Your task to perform on an android device: View the shopping cart on costco.com. Search for usb-a on costco.com, select the first entry, and add it to the cart. Image 0: 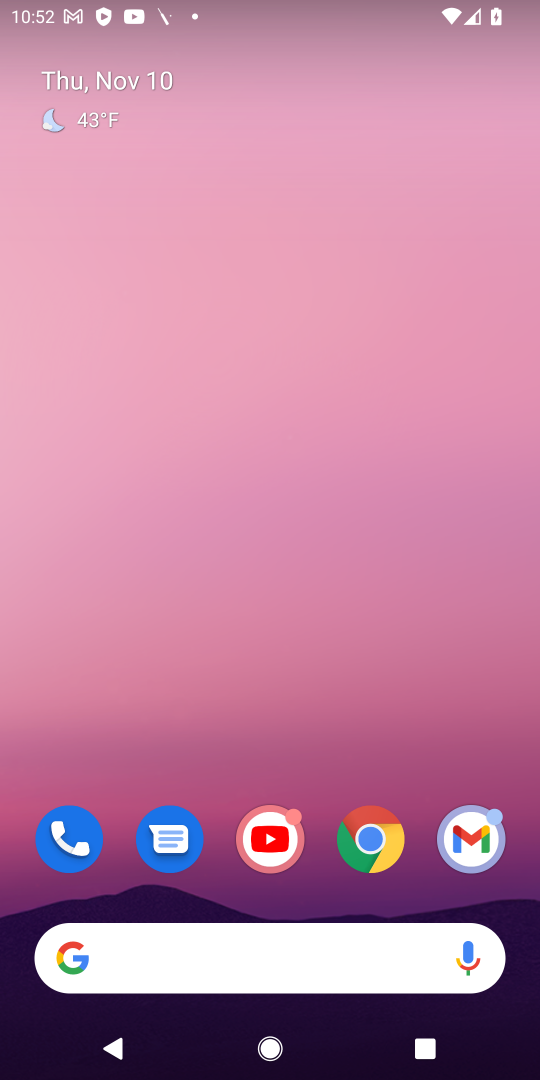
Step 0: click (376, 832)
Your task to perform on an android device: View the shopping cart on costco.com. Search for usb-a on costco.com, select the first entry, and add it to the cart. Image 1: 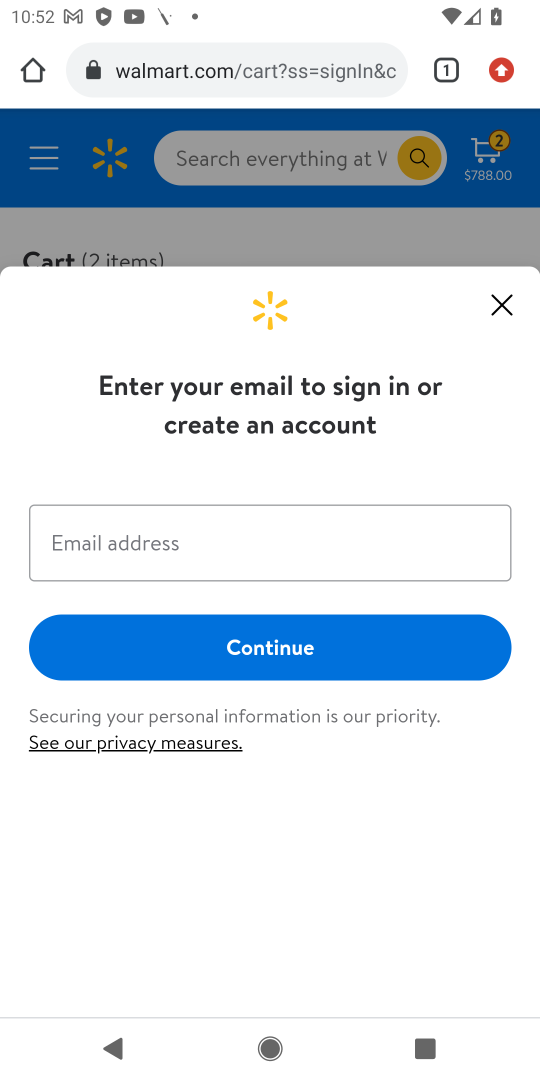
Step 1: click (368, 66)
Your task to perform on an android device: View the shopping cart on costco.com. Search for usb-a on costco.com, select the first entry, and add it to the cart. Image 2: 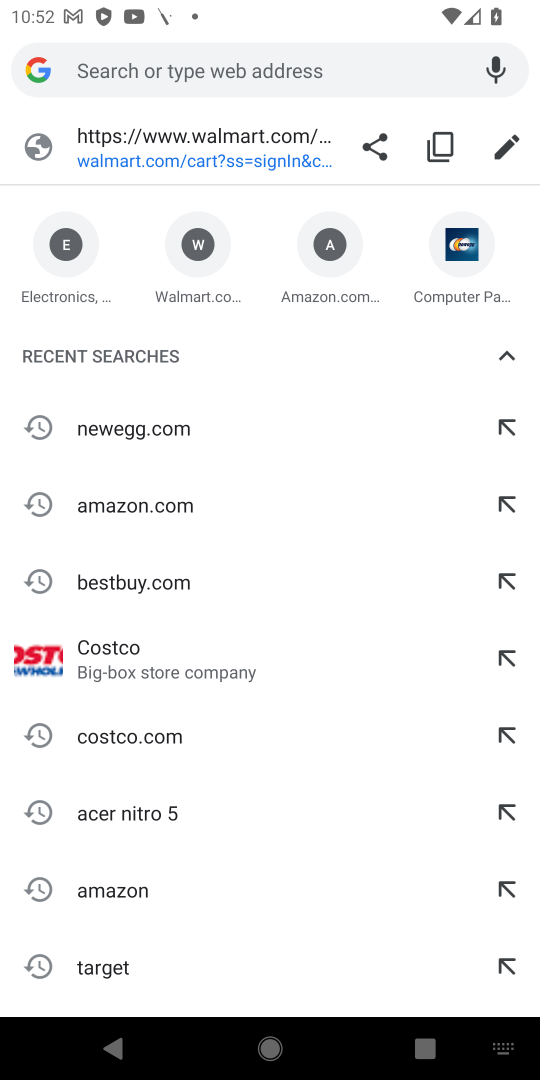
Step 2: click (128, 650)
Your task to perform on an android device: View the shopping cart on costco.com. Search for usb-a on costco.com, select the first entry, and add it to the cart. Image 3: 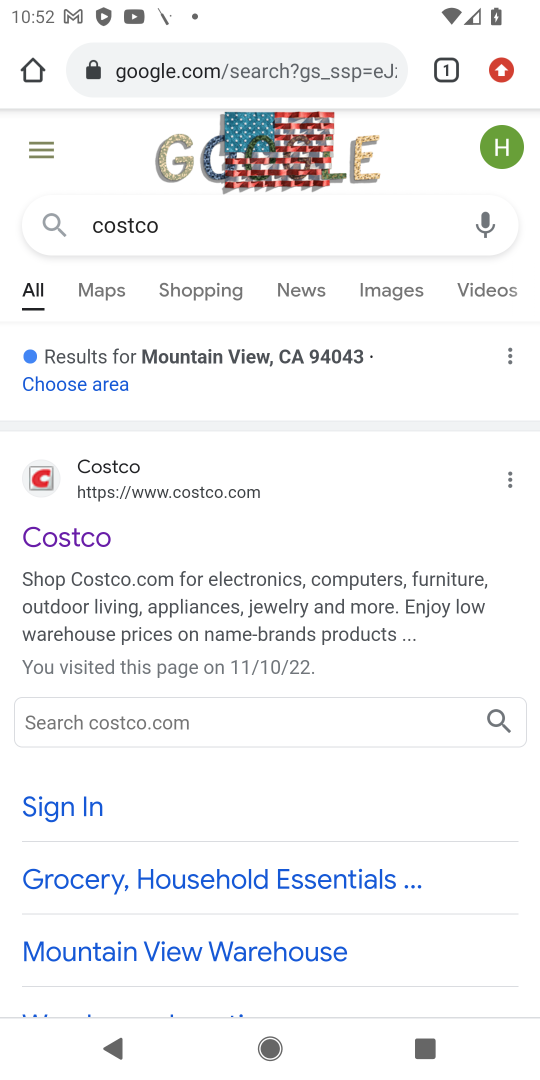
Step 3: click (217, 490)
Your task to perform on an android device: View the shopping cart on costco.com. Search for usb-a on costco.com, select the first entry, and add it to the cart. Image 4: 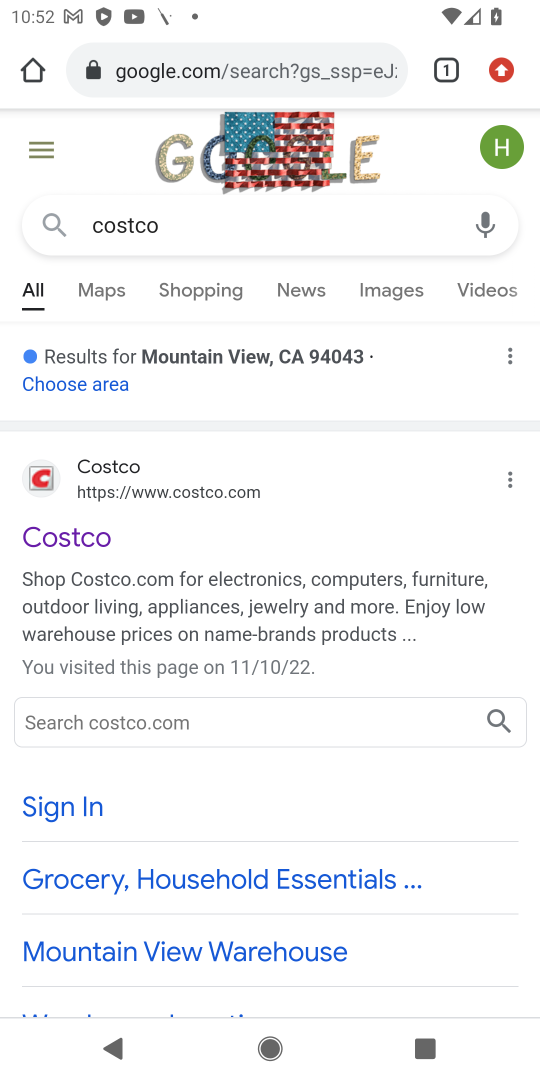
Step 4: click (232, 486)
Your task to perform on an android device: View the shopping cart on costco.com. Search for usb-a on costco.com, select the first entry, and add it to the cart. Image 5: 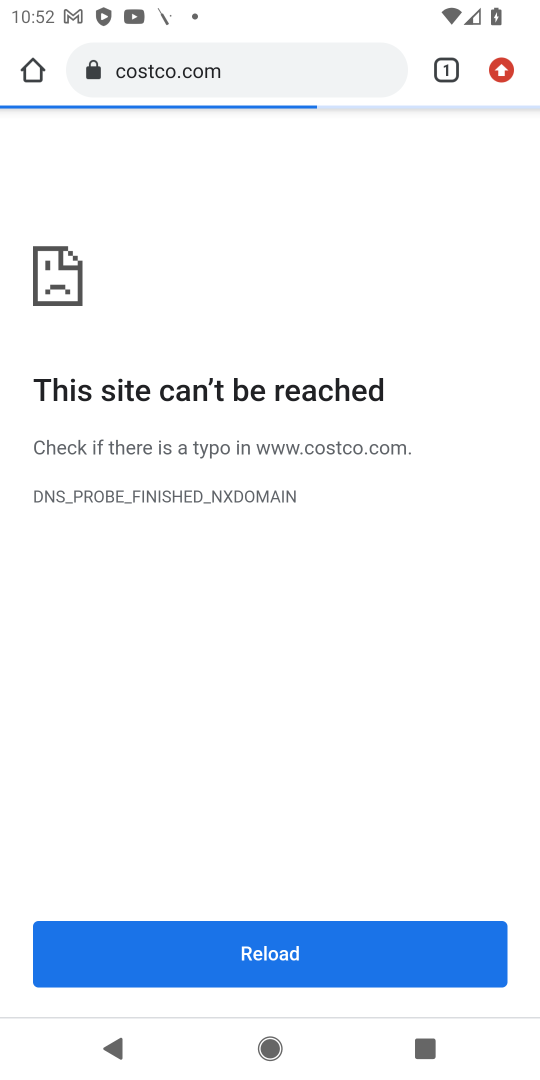
Step 5: press back button
Your task to perform on an android device: View the shopping cart on costco.com. Search for usb-a on costco.com, select the first entry, and add it to the cart. Image 6: 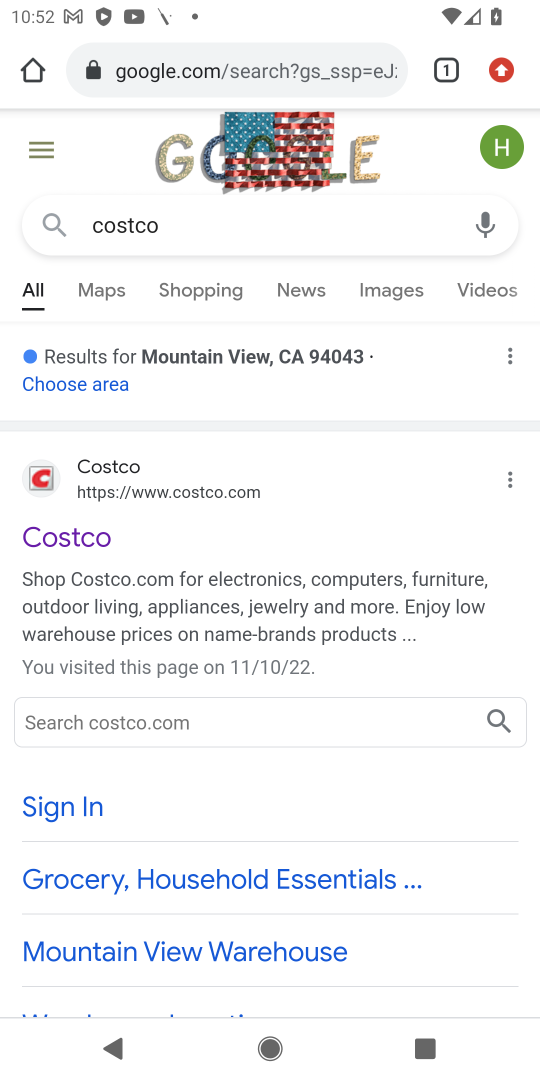
Step 6: drag from (312, 726) to (423, 261)
Your task to perform on an android device: View the shopping cart on costco.com. Search for usb-a on costco.com, select the first entry, and add it to the cart. Image 7: 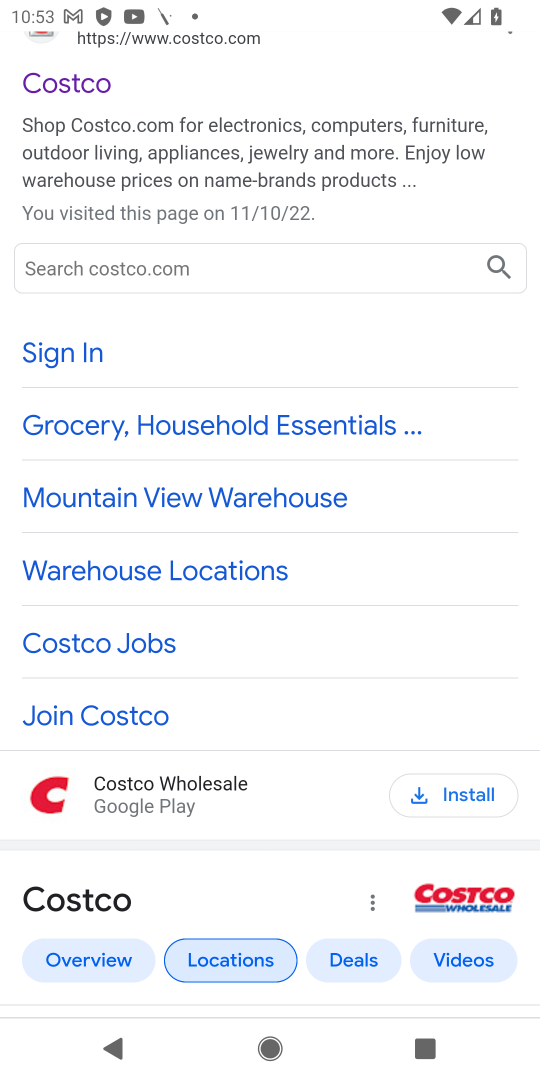
Step 7: drag from (282, 798) to (416, 413)
Your task to perform on an android device: View the shopping cart on costco.com. Search for usb-a on costco.com, select the first entry, and add it to the cart. Image 8: 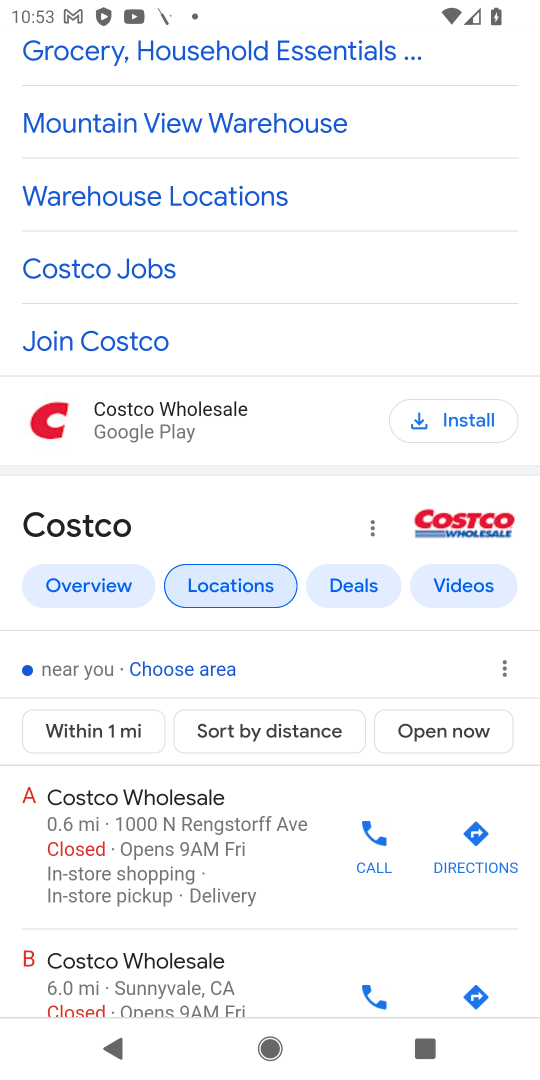
Step 8: drag from (339, 284) to (414, 830)
Your task to perform on an android device: View the shopping cart on costco.com. Search for usb-a on costco.com, select the first entry, and add it to the cart. Image 9: 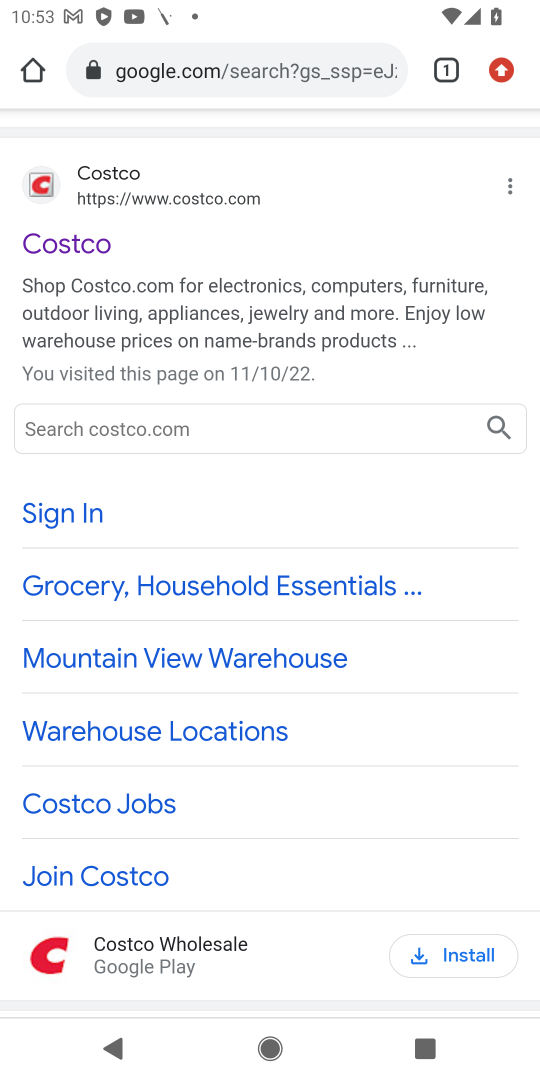
Step 9: click (225, 198)
Your task to perform on an android device: View the shopping cart on costco.com. Search for usb-a on costco.com, select the first entry, and add it to the cart. Image 10: 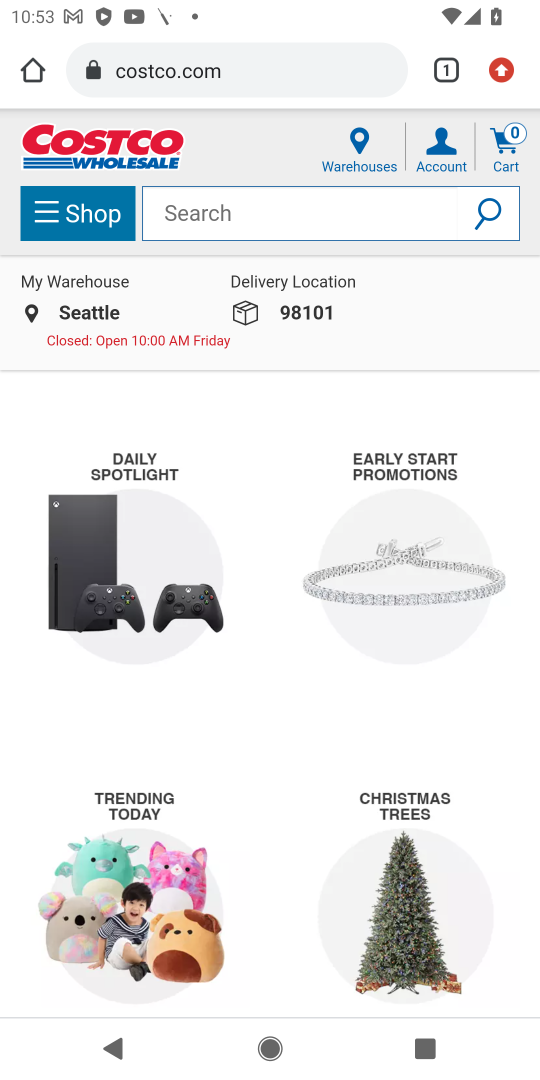
Step 10: click (345, 213)
Your task to perform on an android device: View the shopping cart on costco.com. Search for usb-a on costco.com, select the first entry, and add it to the cart. Image 11: 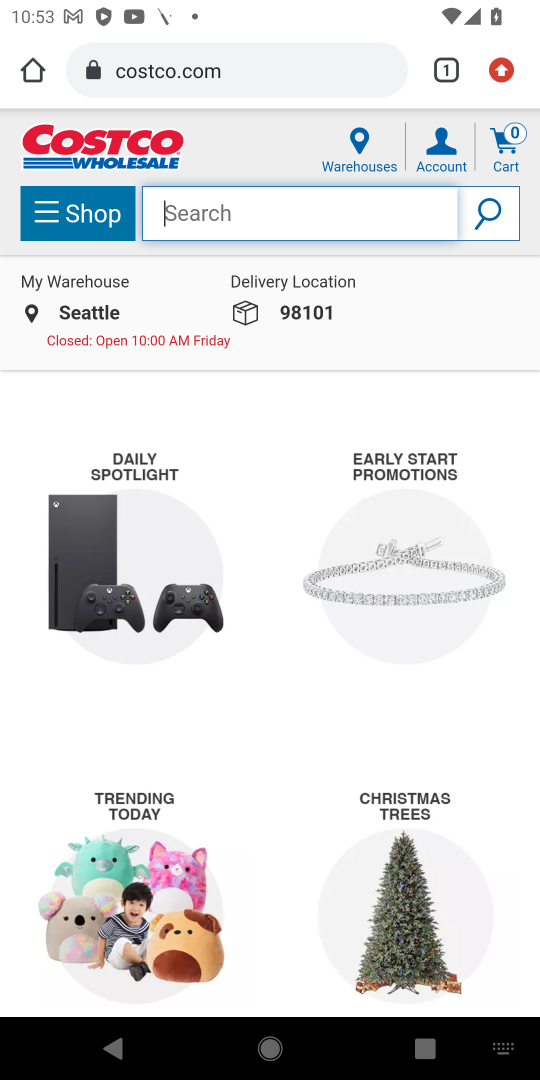
Step 11: press enter
Your task to perform on an android device: View the shopping cart on costco.com. Search for usb-a on costco.com, select the first entry, and add it to the cart. Image 12: 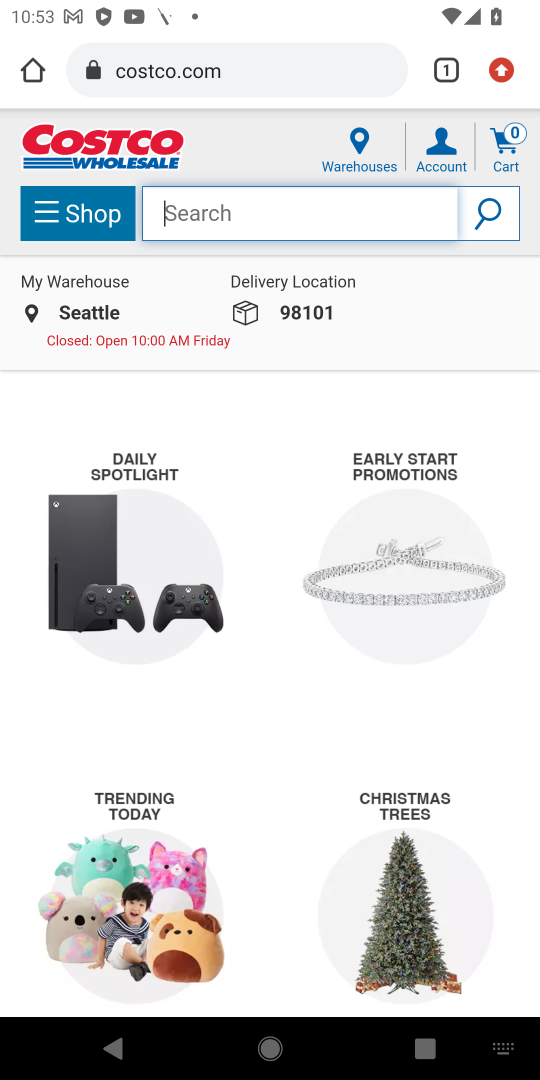
Step 12: type "usb-a"
Your task to perform on an android device: View the shopping cart on costco.com. Search for usb-a on costco.com, select the first entry, and add it to the cart. Image 13: 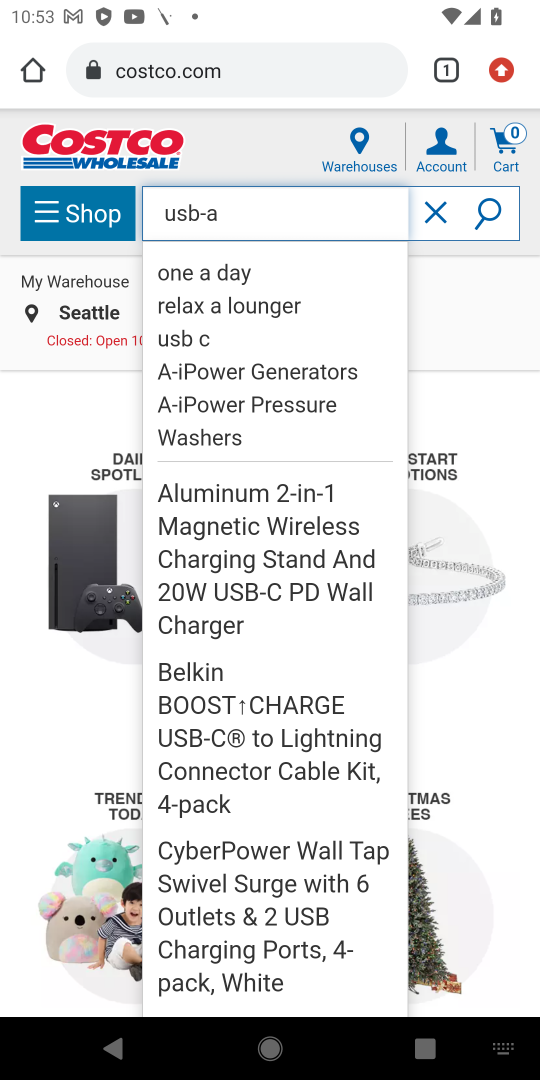
Step 13: click (495, 350)
Your task to perform on an android device: View the shopping cart on costco.com. Search for usb-a on costco.com, select the first entry, and add it to the cart. Image 14: 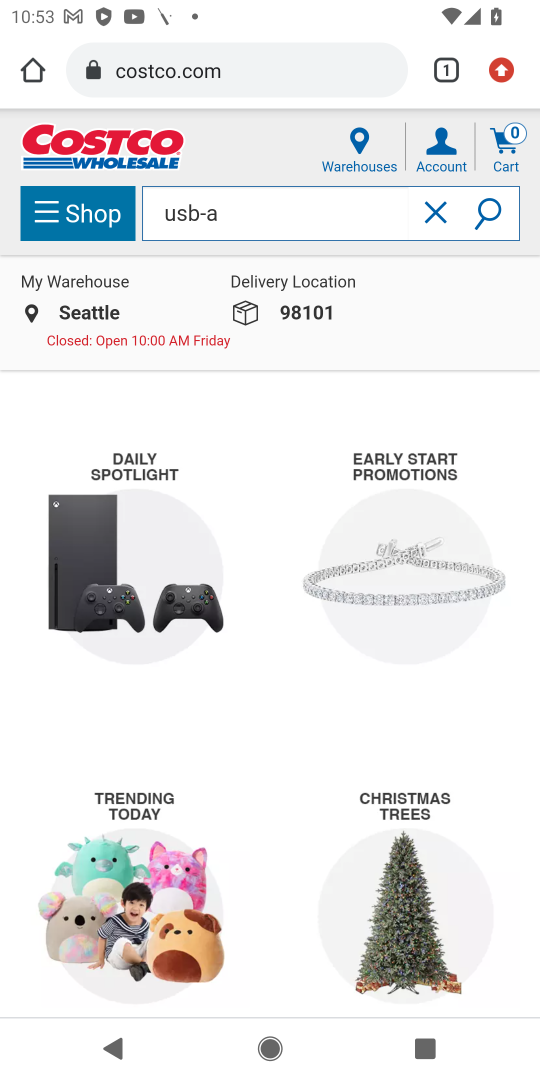
Step 14: task complete